Your task to perform on an android device: search for starred emails in the gmail app Image 0: 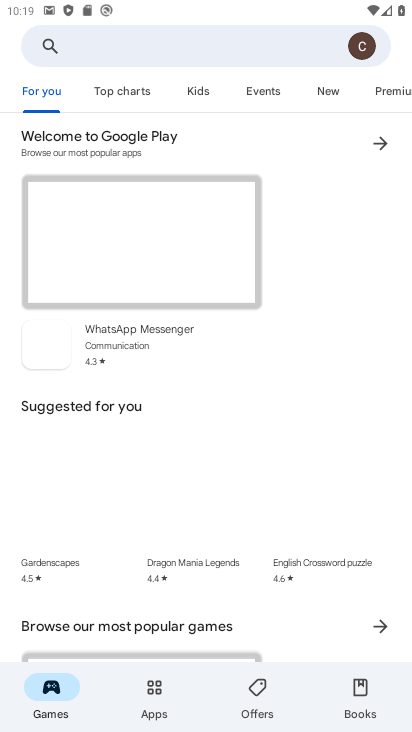
Step 0: press home button
Your task to perform on an android device: search for starred emails in the gmail app Image 1: 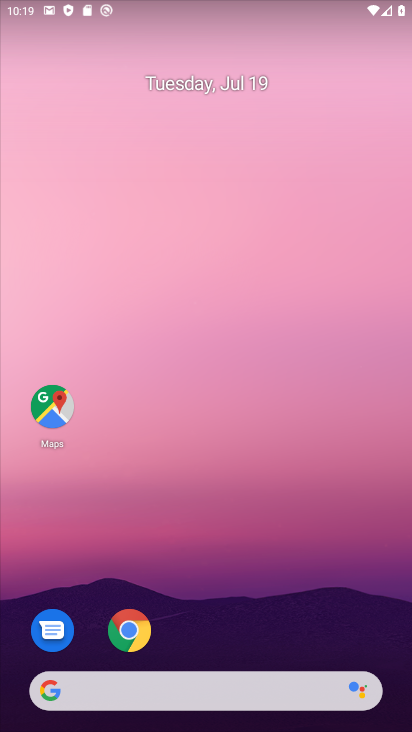
Step 1: drag from (211, 631) to (257, 210)
Your task to perform on an android device: search for starred emails in the gmail app Image 2: 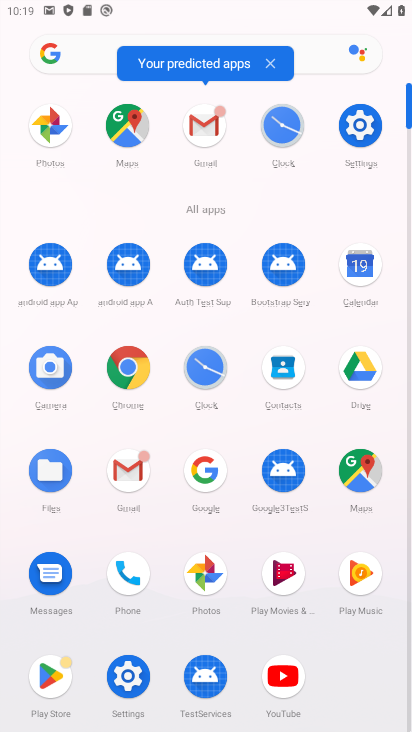
Step 2: click (208, 112)
Your task to perform on an android device: search for starred emails in the gmail app Image 3: 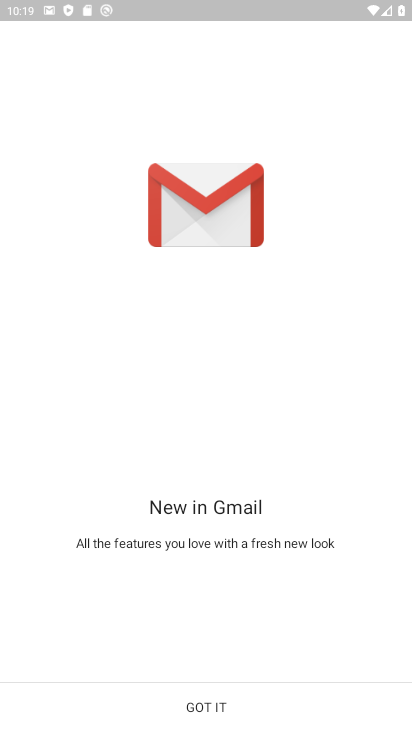
Step 3: click (232, 713)
Your task to perform on an android device: search for starred emails in the gmail app Image 4: 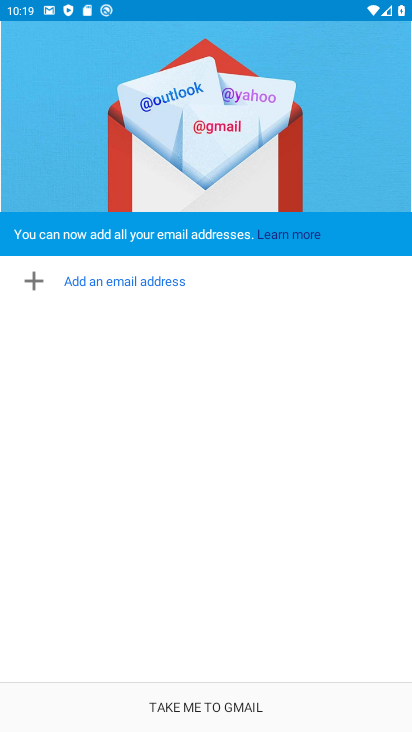
Step 4: click (232, 713)
Your task to perform on an android device: search for starred emails in the gmail app Image 5: 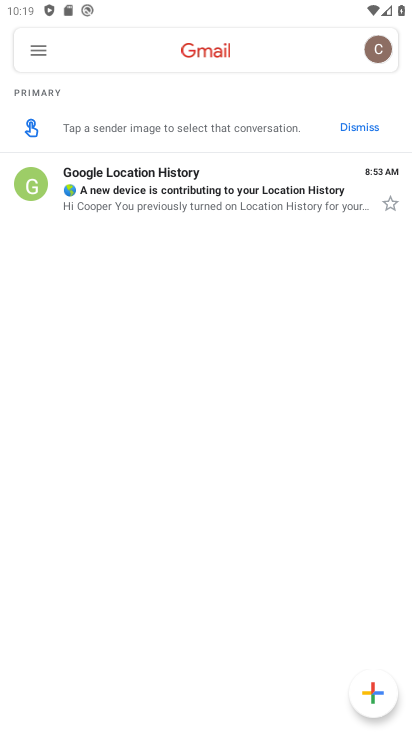
Step 5: click (44, 59)
Your task to perform on an android device: search for starred emails in the gmail app Image 6: 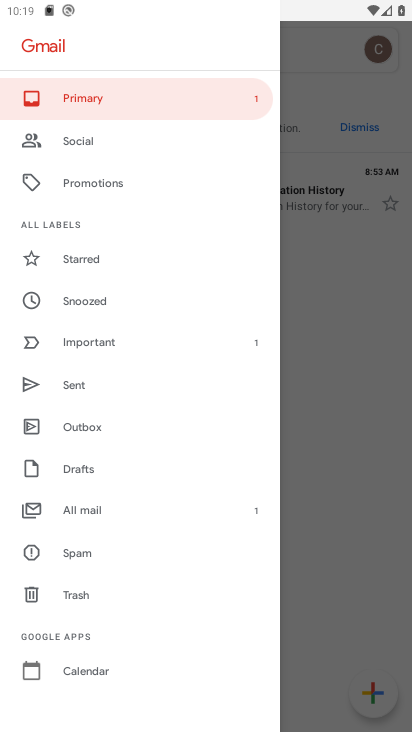
Step 6: click (109, 256)
Your task to perform on an android device: search for starred emails in the gmail app Image 7: 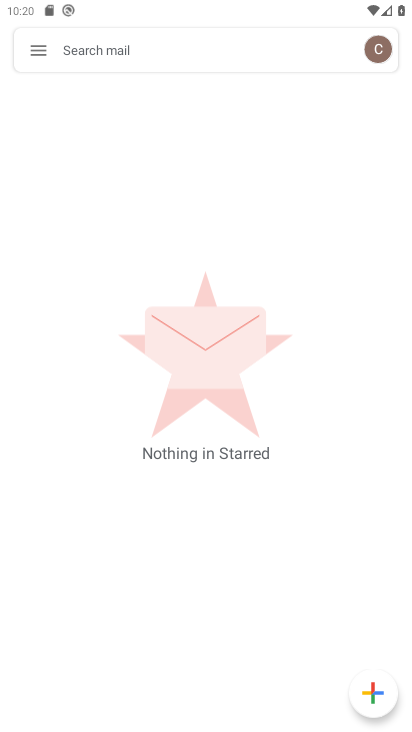
Step 7: task complete